Your task to perform on an android device: turn off notifications settings in the gmail app Image 0: 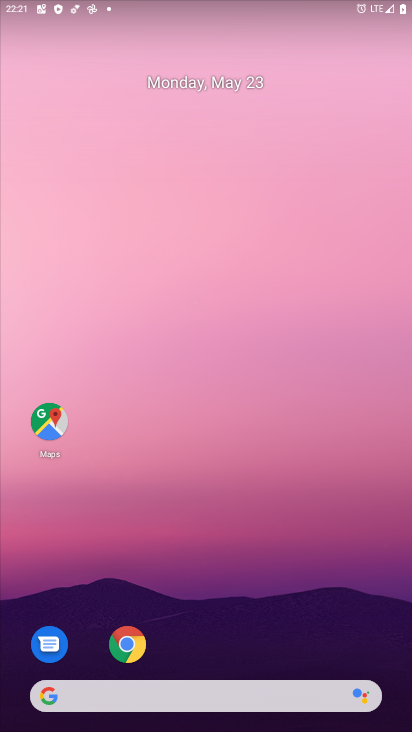
Step 0: drag from (200, 685) to (151, 80)
Your task to perform on an android device: turn off notifications settings in the gmail app Image 1: 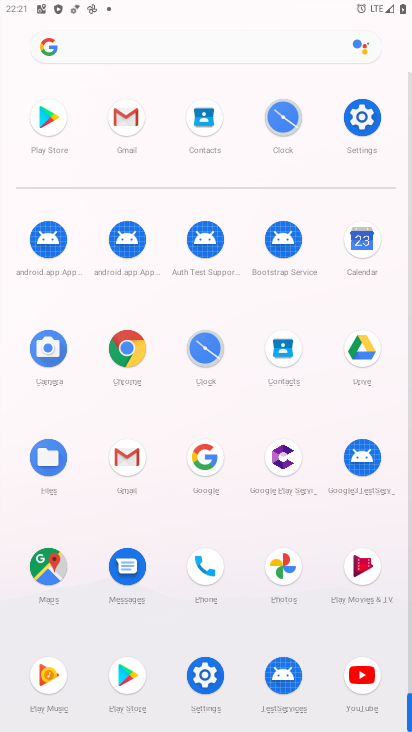
Step 1: click (115, 122)
Your task to perform on an android device: turn off notifications settings in the gmail app Image 2: 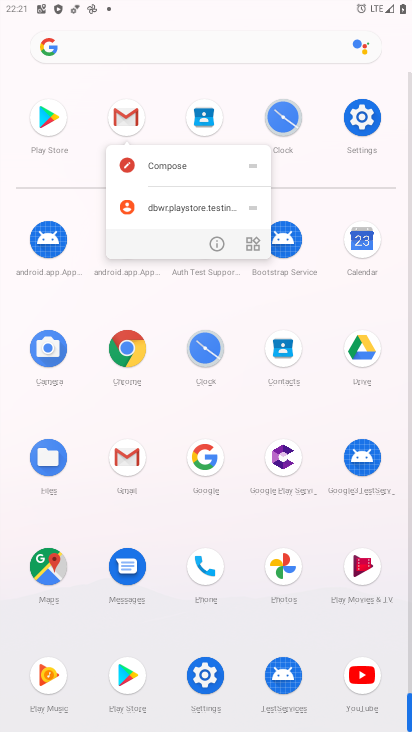
Step 2: click (215, 249)
Your task to perform on an android device: turn off notifications settings in the gmail app Image 3: 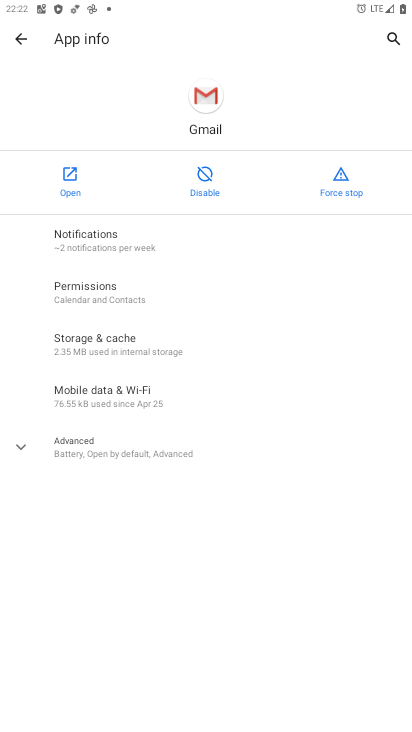
Step 3: click (208, 246)
Your task to perform on an android device: turn off notifications settings in the gmail app Image 4: 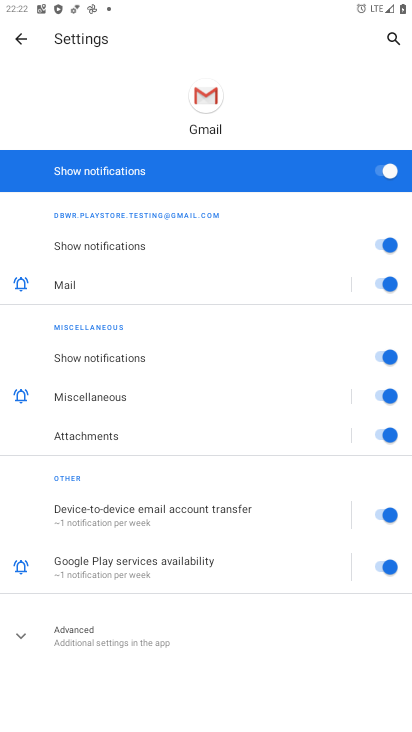
Step 4: click (394, 165)
Your task to perform on an android device: turn off notifications settings in the gmail app Image 5: 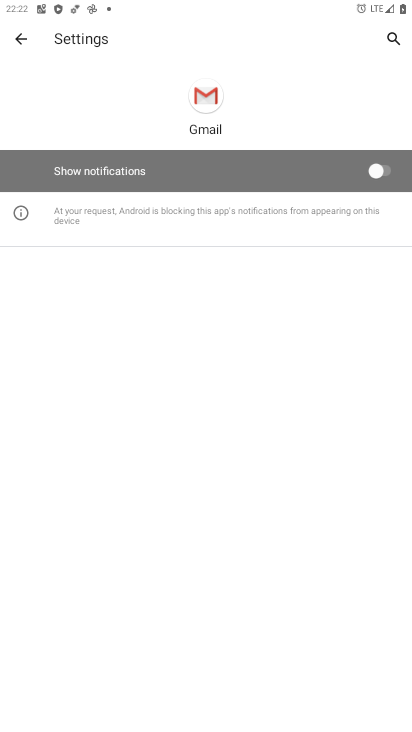
Step 5: task complete